Your task to perform on an android device: Open the calendar and show me this week's events? Image 0: 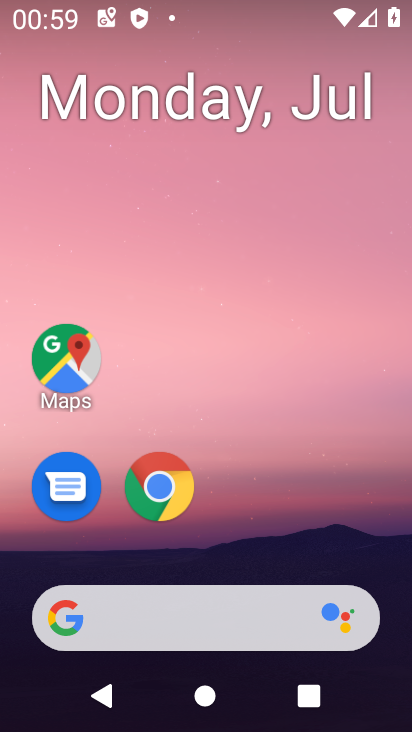
Step 0: press home button
Your task to perform on an android device: Open the calendar and show me this week's events? Image 1: 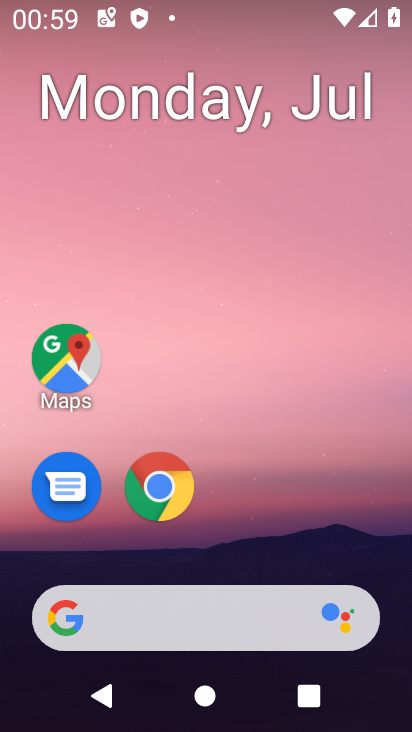
Step 1: drag from (365, 553) to (354, 148)
Your task to perform on an android device: Open the calendar and show me this week's events? Image 2: 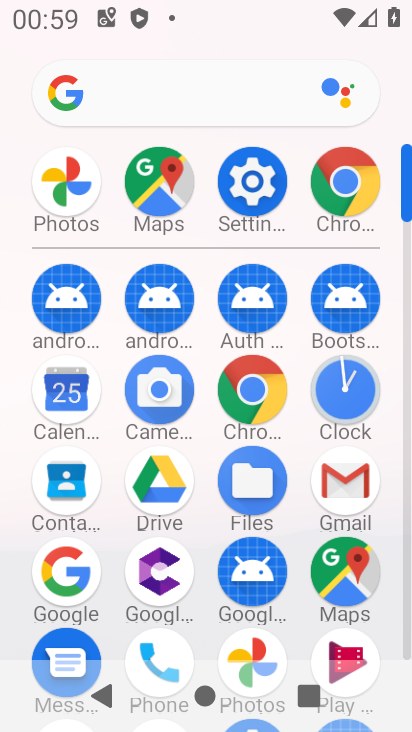
Step 2: click (77, 392)
Your task to perform on an android device: Open the calendar and show me this week's events? Image 3: 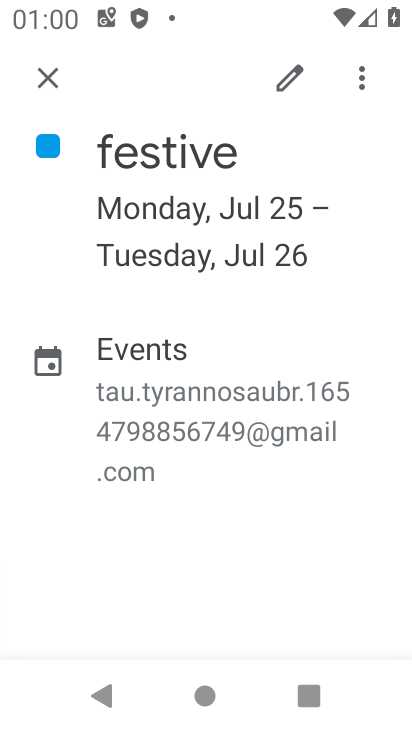
Step 3: task complete